Your task to perform on an android device: Go to calendar. Show me events next week Image 0: 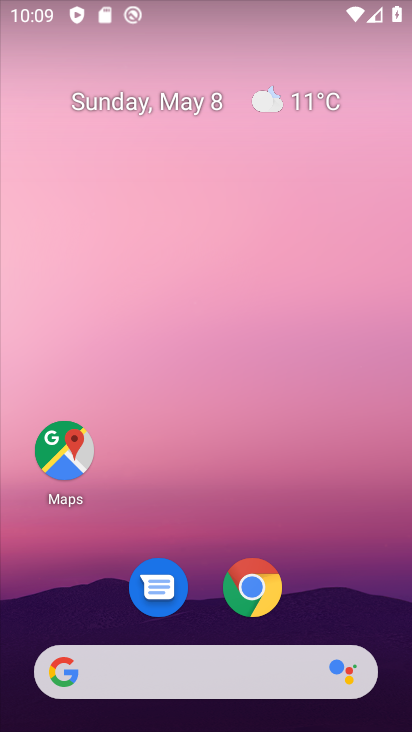
Step 0: drag from (207, 654) to (192, 109)
Your task to perform on an android device: Go to calendar. Show me events next week Image 1: 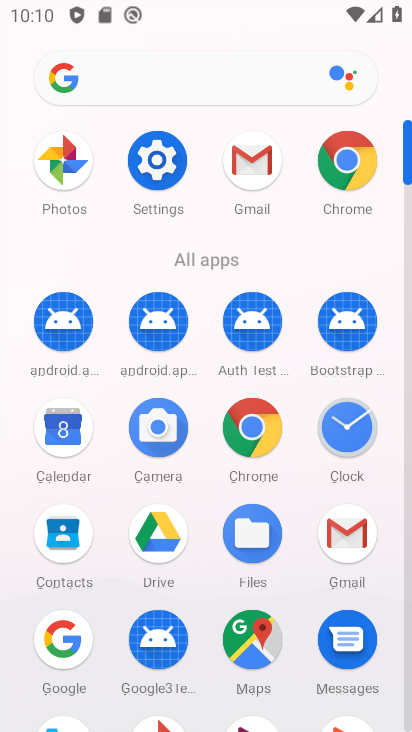
Step 1: click (65, 420)
Your task to perform on an android device: Go to calendar. Show me events next week Image 2: 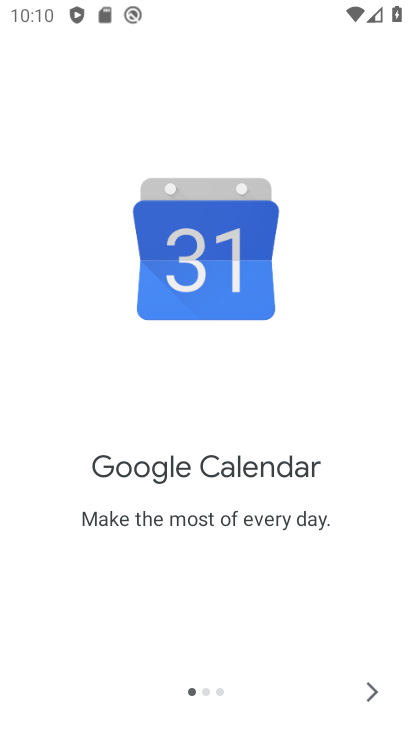
Step 2: click (353, 686)
Your task to perform on an android device: Go to calendar. Show me events next week Image 3: 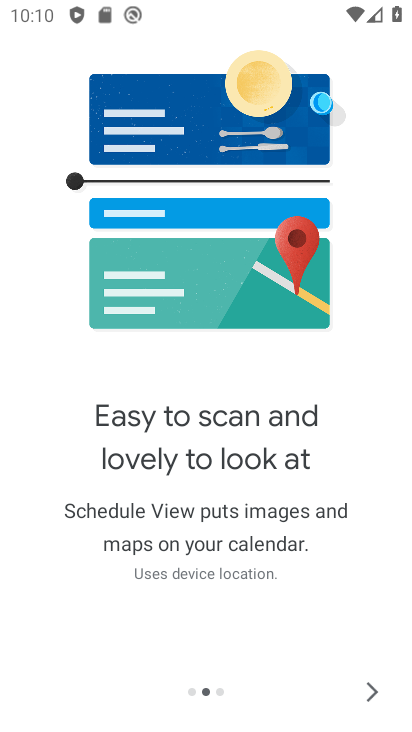
Step 3: click (362, 687)
Your task to perform on an android device: Go to calendar. Show me events next week Image 4: 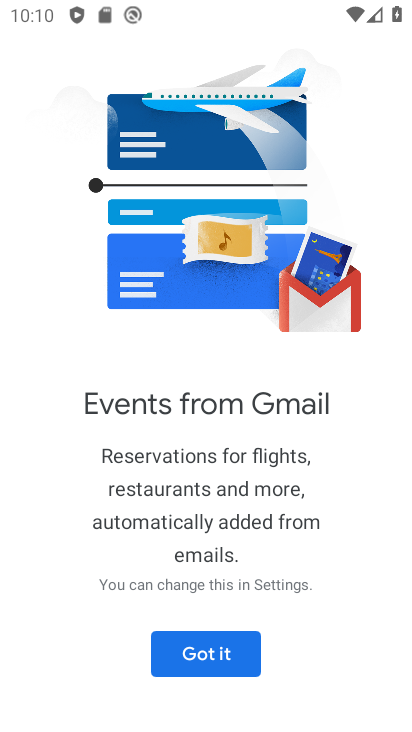
Step 4: click (216, 656)
Your task to perform on an android device: Go to calendar. Show me events next week Image 5: 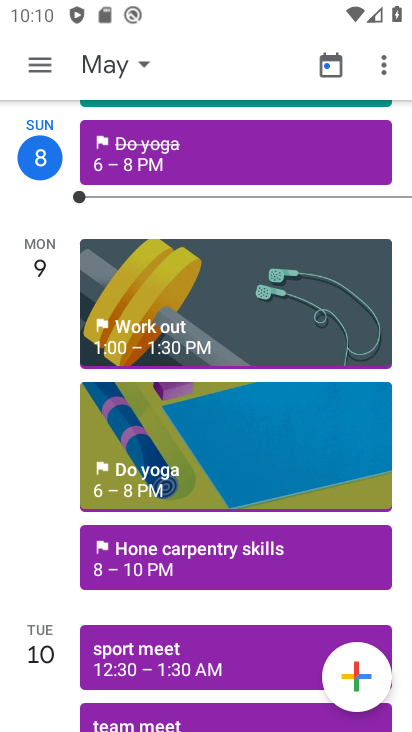
Step 5: click (37, 77)
Your task to perform on an android device: Go to calendar. Show me events next week Image 6: 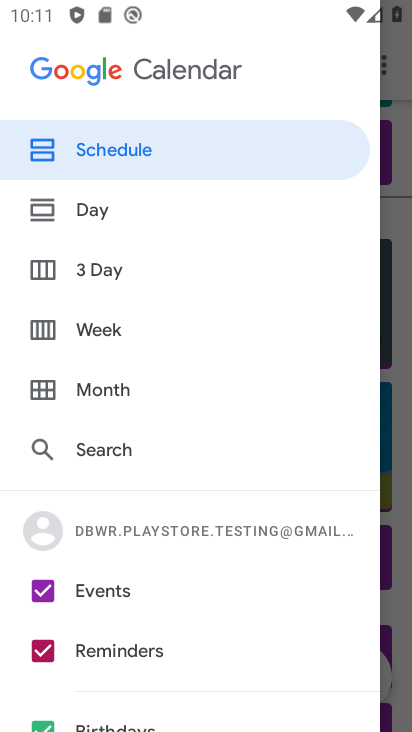
Step 6: click (87, 334)
Your task to perform on an android device: Go to calendar. Show me events next week Image 7: 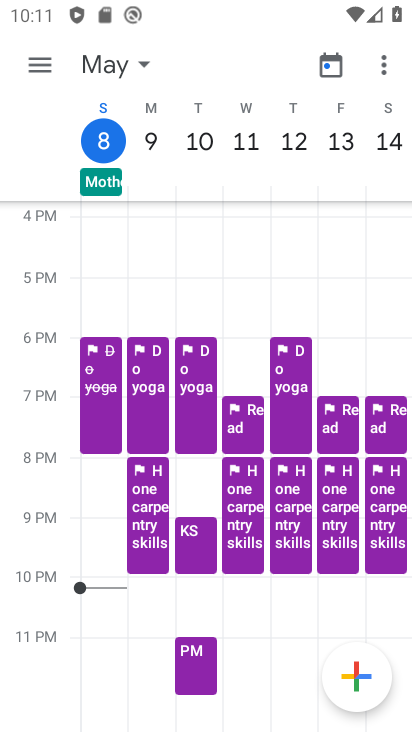
Step 7: task complete